Your task to perform on an android device: see creations saved in the google photos Image 0: 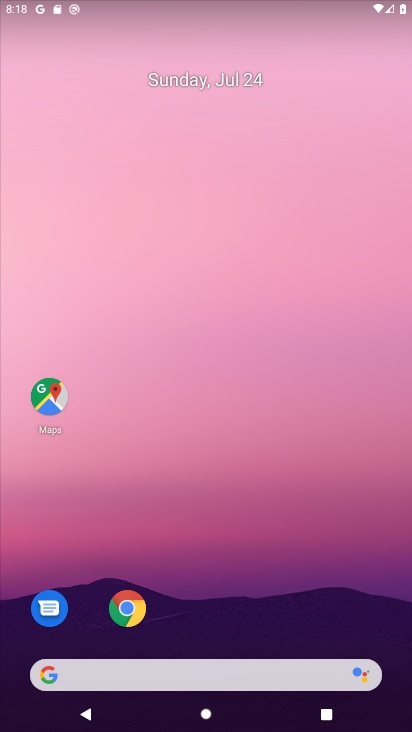
Step 0: drag from (225, 632) to (230, 196)
Your task to perform on an android device: see creations saved in the google photos Image 1: 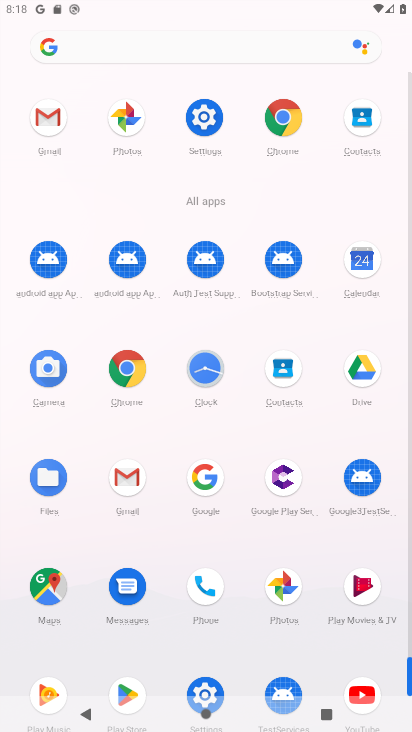
Step 1: click (129, 118)
Your task to perform on an android device: see creations saved in the google photos Image 2: 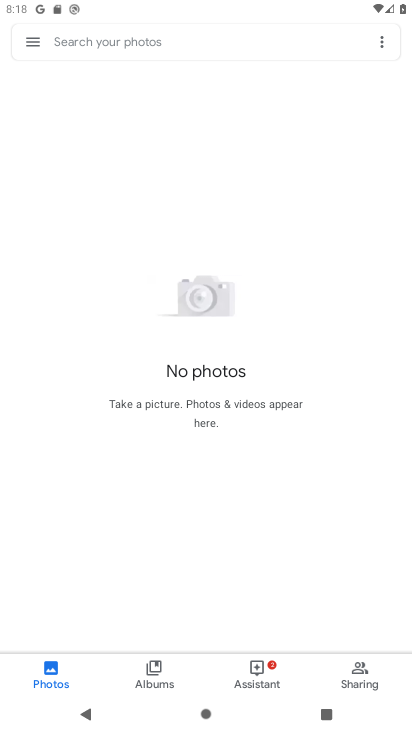
Step 2: task complete